Your task to perform on an android device: Search for Mexican restaurants on Maps Image 0: 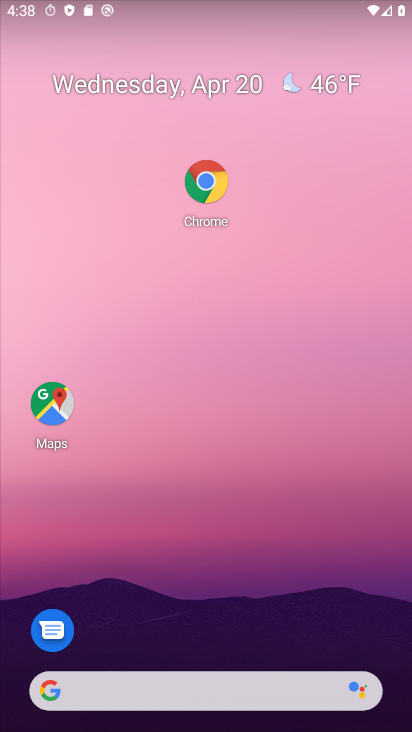
Step 0: click (49, 405)
Your task to perform on an android device: Search for Mexican restaurants on Maps Image 1: 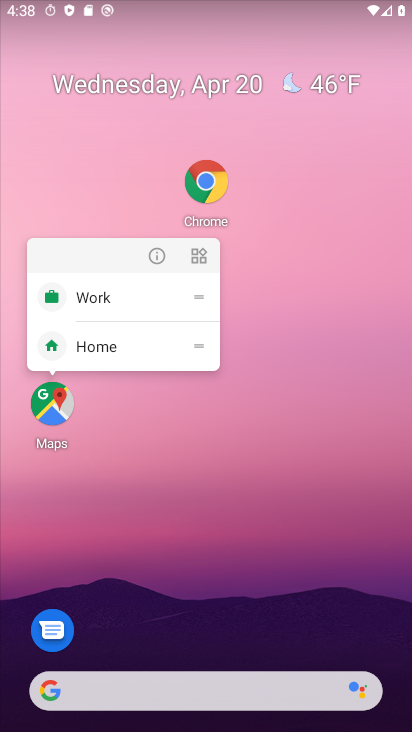
Step 1: click (48, 394)
Your task to perform on an android device: Search for Mexican restaurants on Maps Image 2: 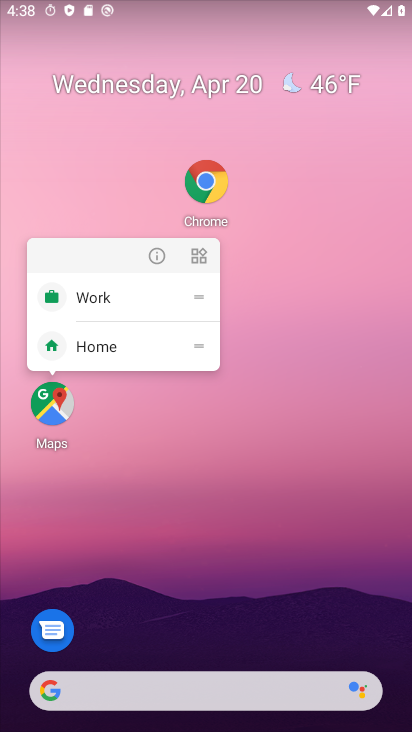
Step 2: click (63, 402)
Your task to perform on an android device: Search for Mexican restaurants on Maps Image 3: 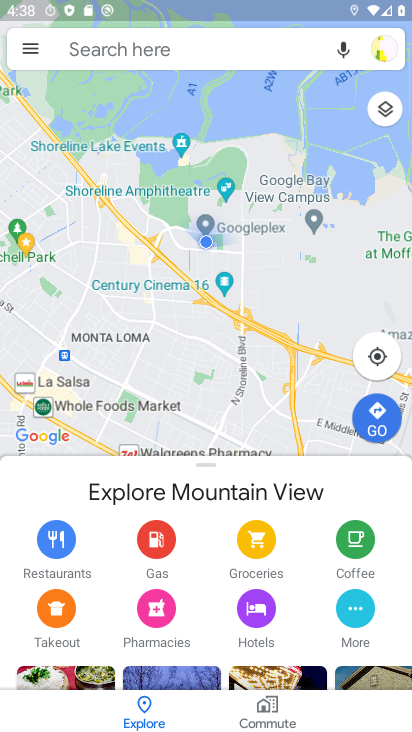
Step 3: click (92, 40)
Your task to perform on an android device: Search for Mexican restaurants on Maps Image 4: 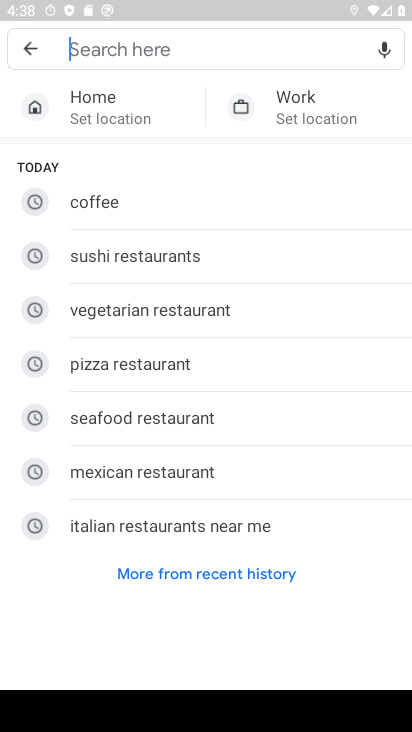
Step 4: click (85, 464)
Your task to perform on an android device: Search for Mexican restaurants on Maps Image 5: 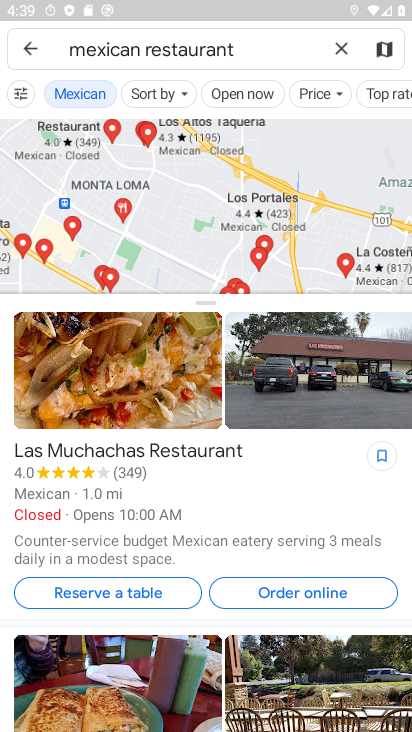
Step 5: task complete